Your task to perform on an android device: Open Yahoo.com Image 0: 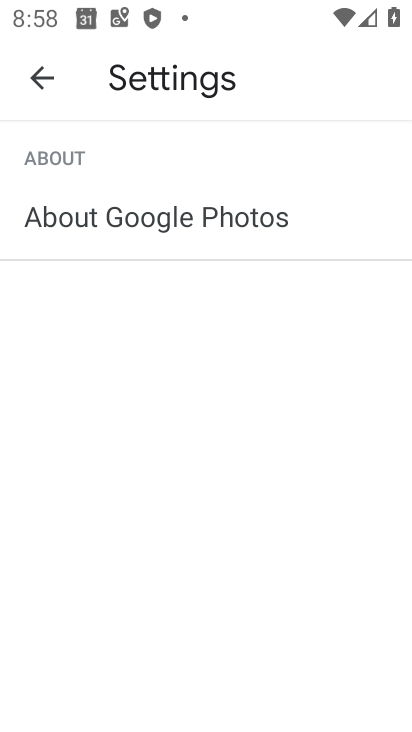
Step 0: press back button
Your task to perform on an android device: Open Yahoo.com Image 1: 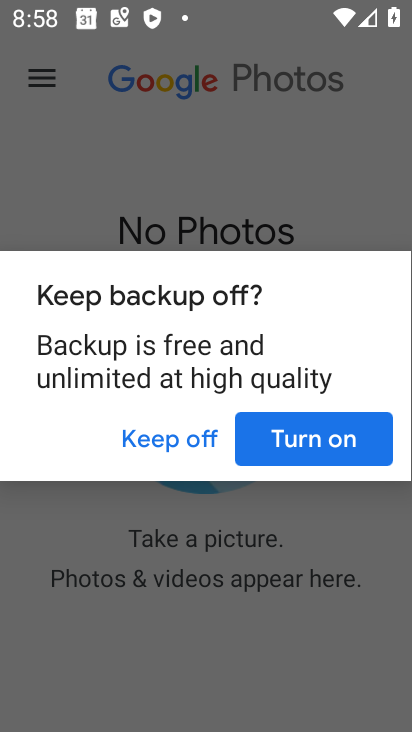
Step 1: press back button
Your task to perform on an android device: Open Yahoo.com Image 2: 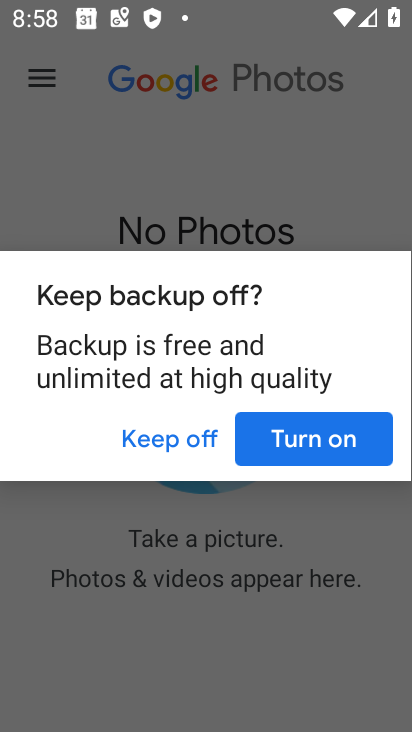
Step 2: press home button
Your task to perform on an android device: Open Yahoo.com Image 3: 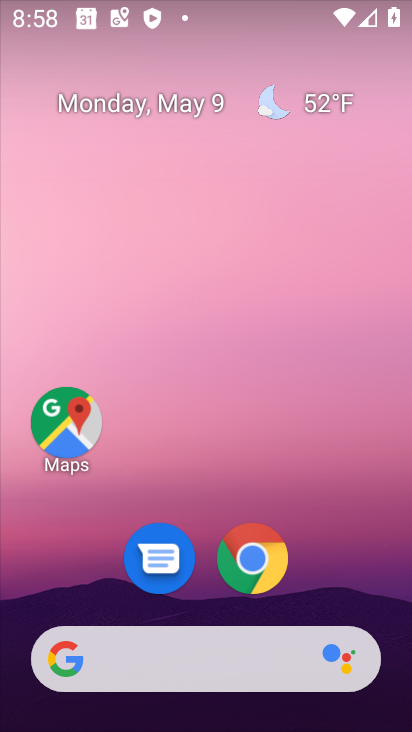
Step 3: click (279, 558)
Your task to perform on an android device: Open Yahoo.com Image 4: 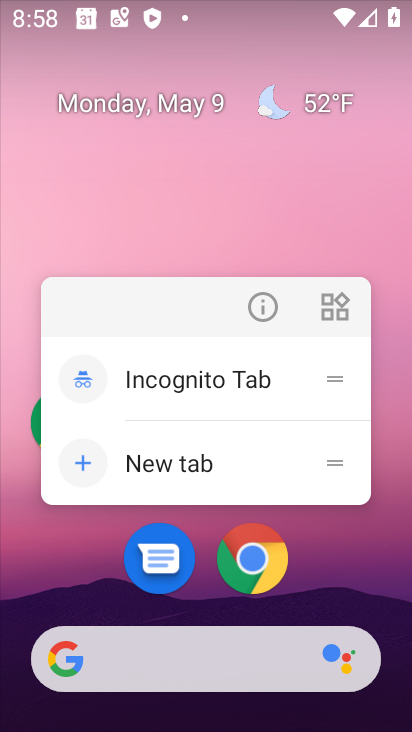
Step 4: click (251, 560)
Your task to perform on an android device: Open Yahoo.com Image 5: 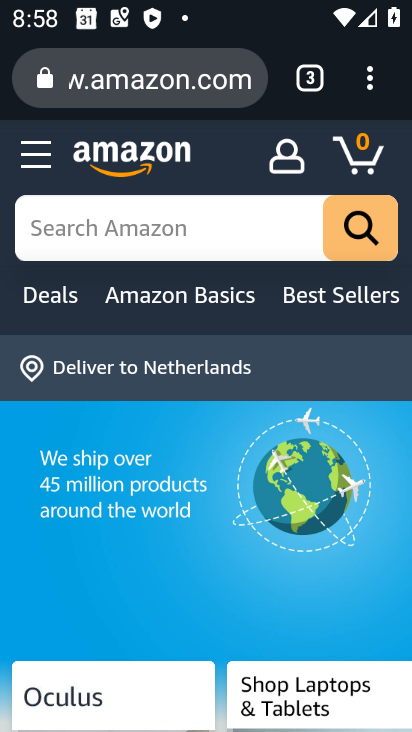
Step 5: click (321, 79)
Your task to perform on an android device: Open Yahoo.com Image 6: 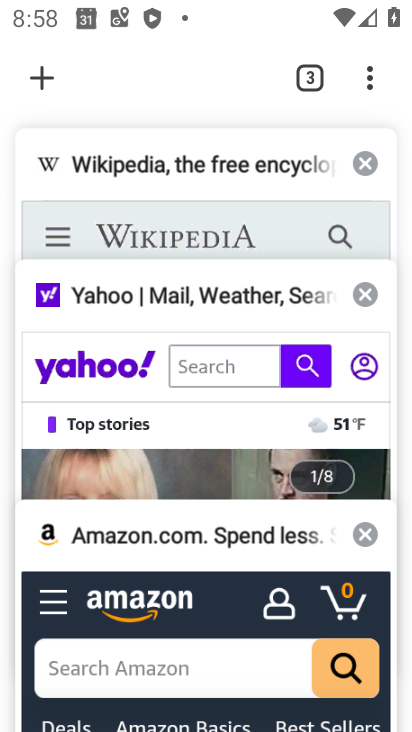
Step 6: click (107, 362)
Your task to perform on an android device: Open Yahoo.com Image 7: 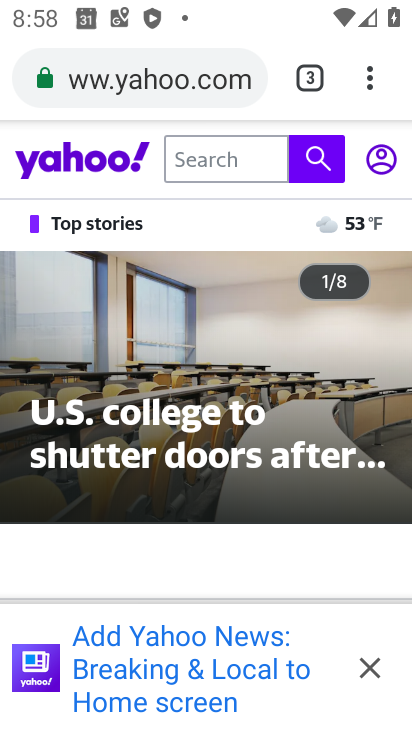
Step 7: task complete